Your task to perform on an android device: see tabs open on other devices in the chrome app Image 0: 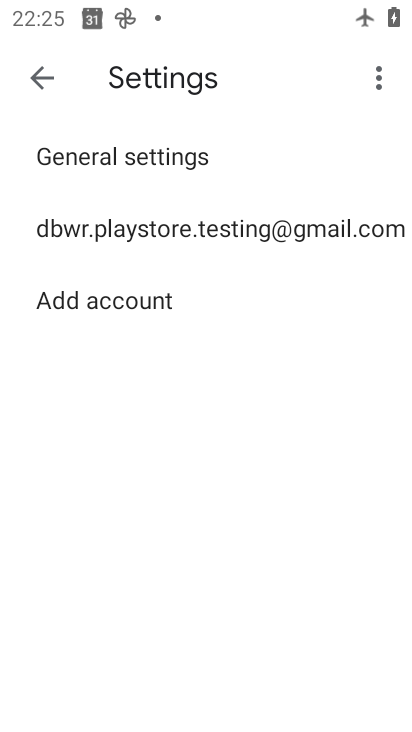
Step 0: press home button
Your task to perform on an android device: see tabs open on other devices in the chrome app Image 1: 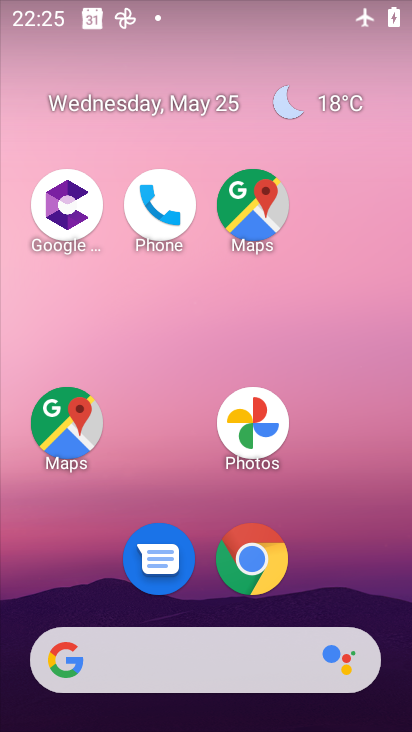
Step 1: click (266, 557)
Your task to perform on an android device: see tabs open on other devices in the chrome app Image 2: 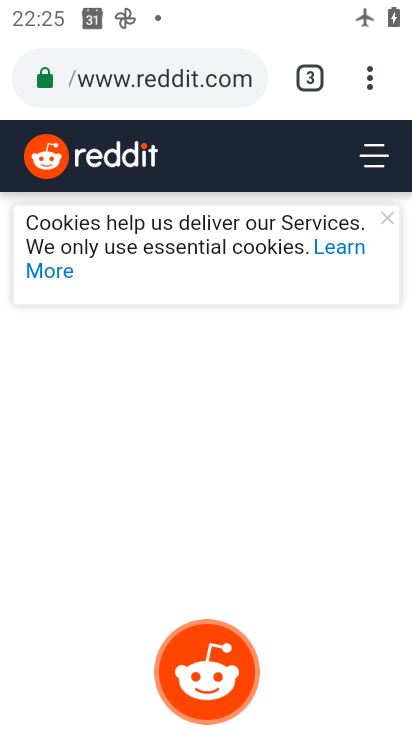
Step 2: click (382, 81)
Your task to perform on an android device: see tabs open on other devices in the chrome app Image 3: 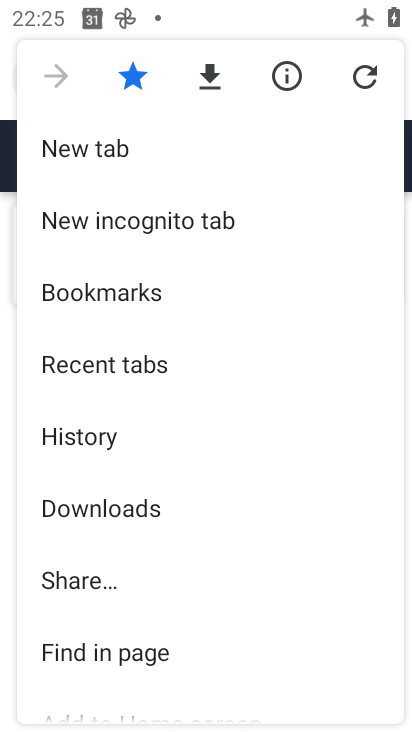
Step 3: click (137, 359)
Your task to perform on an android device: see tabs open on other devices in the chrome app Image 4: 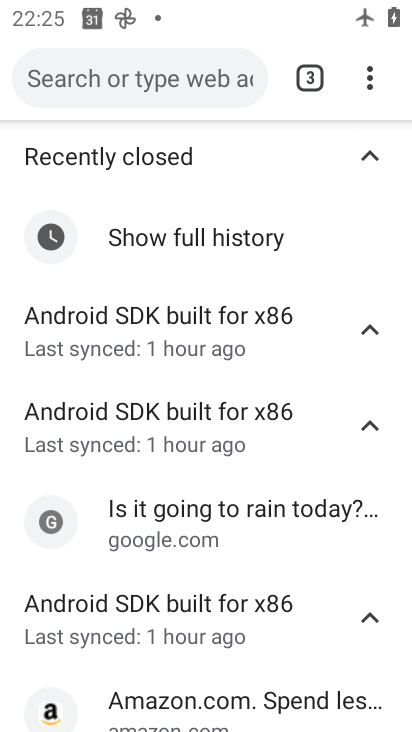
Step 4: task complete